Your task to perform on an android device: Search for macbook air on walmart, select the first entry, and add it to the cart. Image 0: 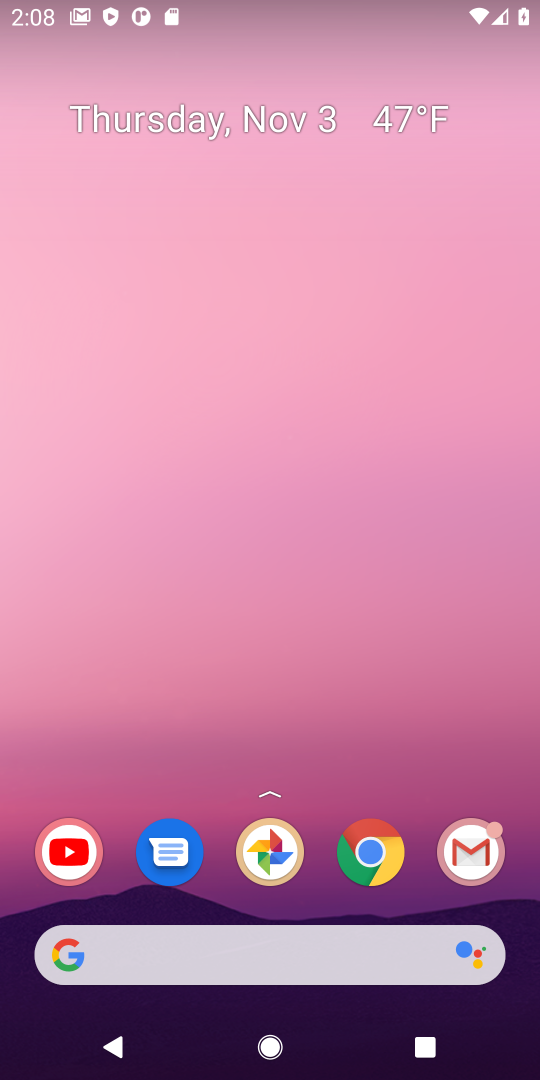
Step 0: click (383, 849)
Your task to perform on an android device: Search for macbook air on walmart, select the first entry, and add it to the cart. Image 1: 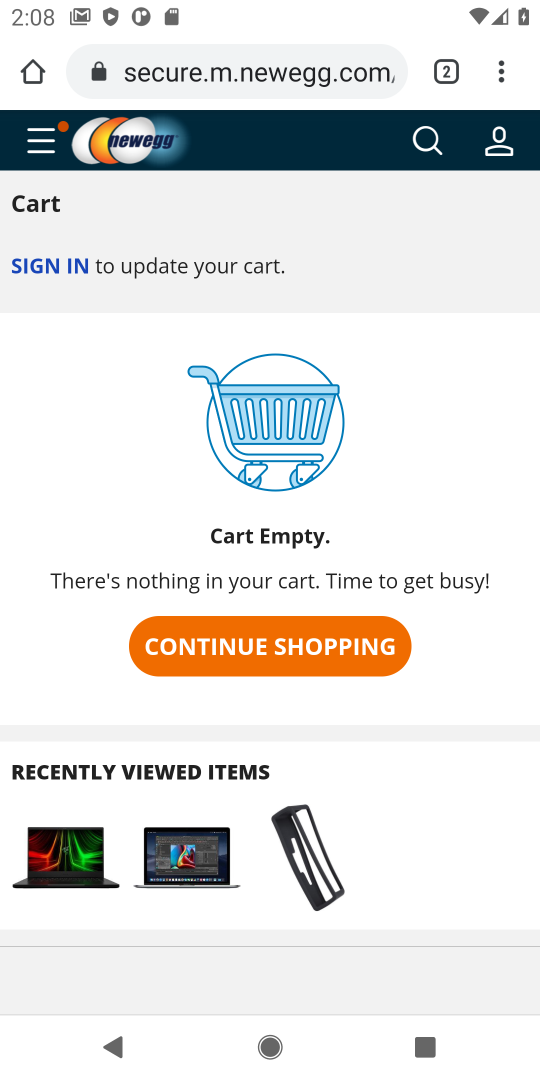
Step 1: click (237, 75)
Your task to perform on an android device: Search for macbook air on walmart, select the first entry, and add it to the cart. Image 2: 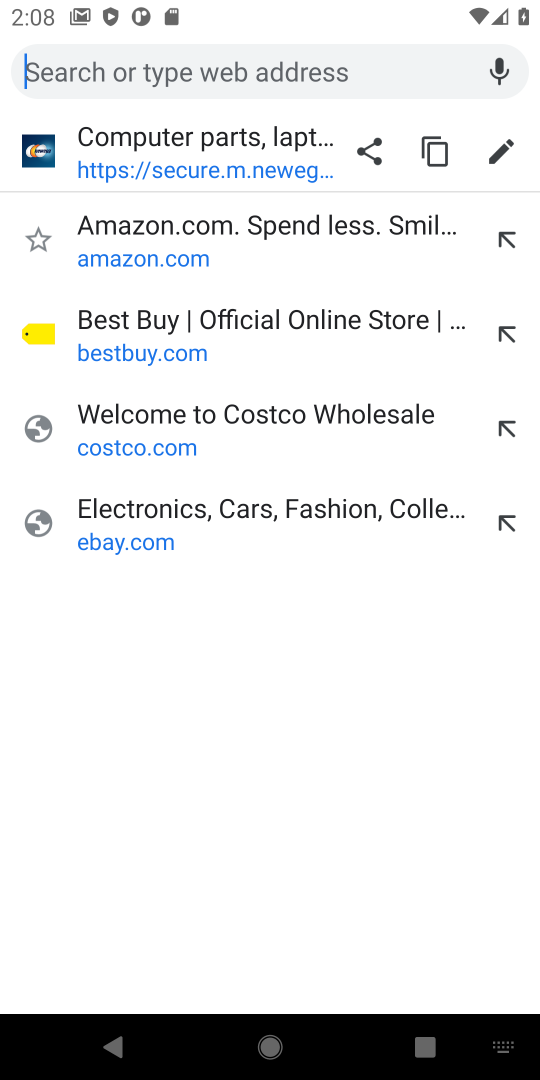
Step 2: type "walmart.com"
Your task to perform on an android device: Search for macbook air on walmart, select the first entry, and add it to the cart. Image 3: 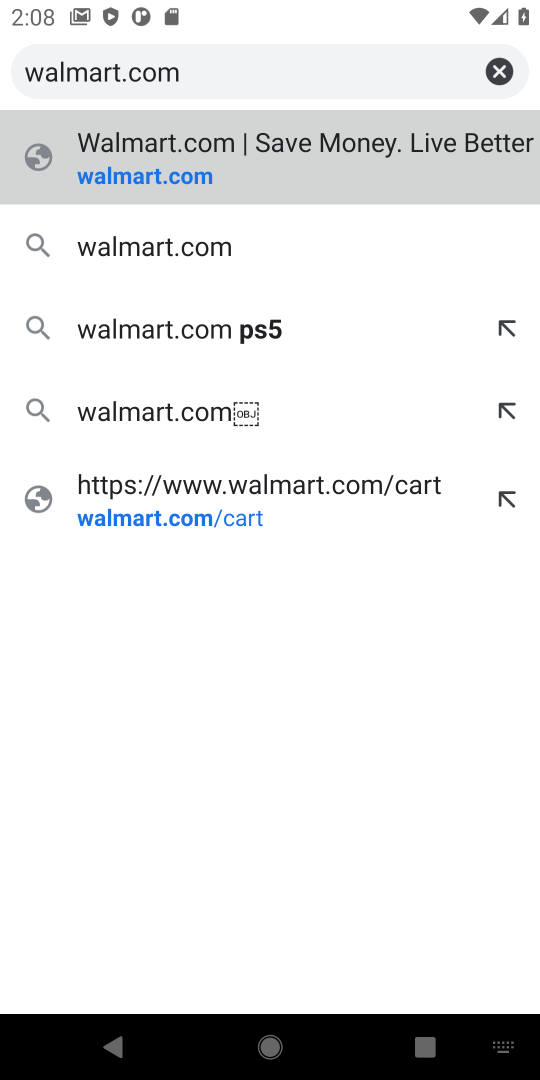
Step 3: click (171, 180)
Your task to perform on an android device: Search for macbook air on walmart, select the first entry, and add it to the cart. Image 4: 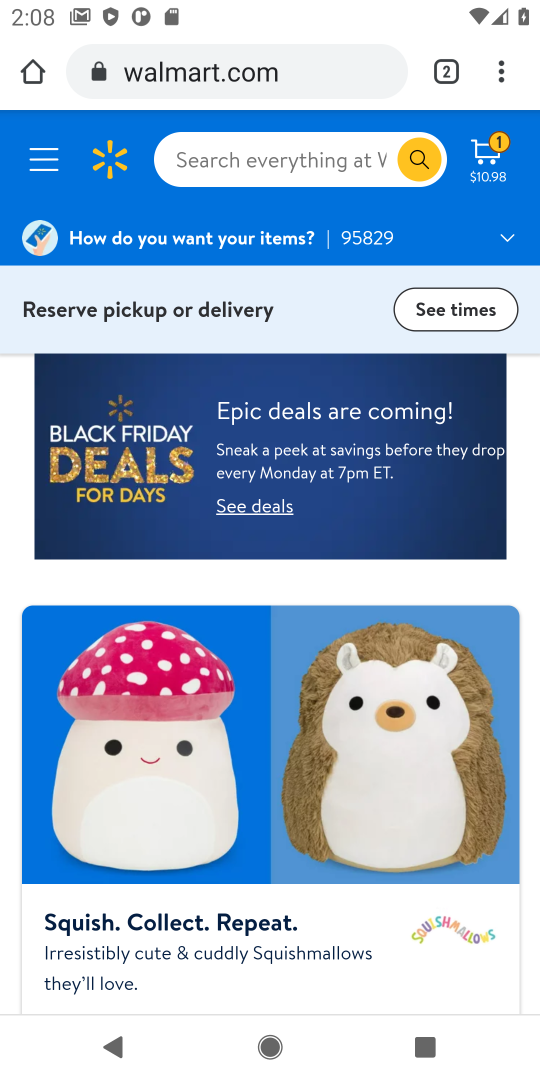
Step 4: click (232, 164)
Your task to perform on an android device: Search for macbook air on walmart, select the first entry, and add it to the cart. Image 5: 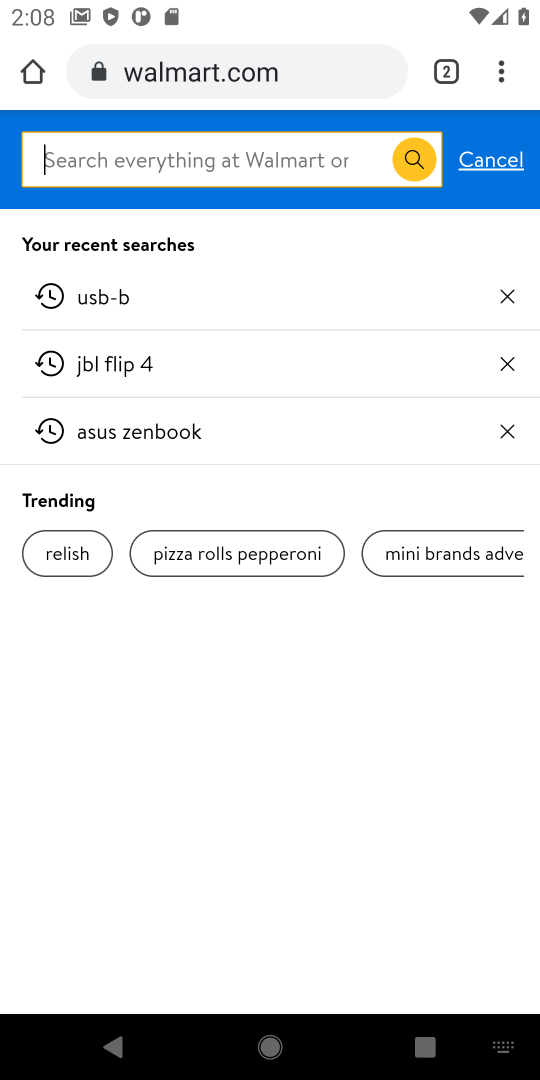
Step 5: type "macbook air"
Your task to perform on an android device: Search for macbook air on walmart, select the first entry, and add it to the cart. Image 6: 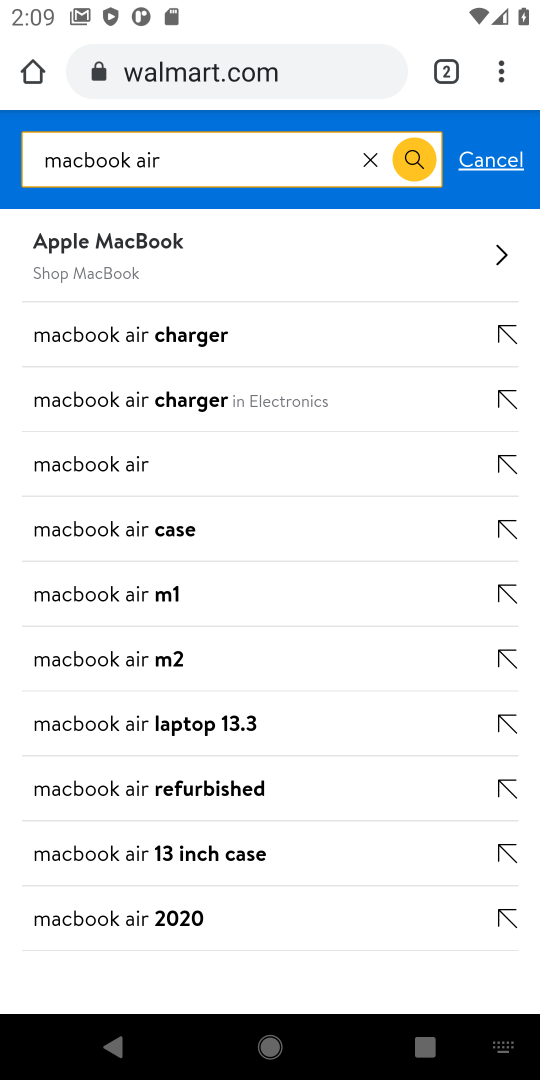
Step 6: click (88, 468)
Your task to perform on an android device: Search for macbook air on walmart, select the first entry, and add it to the cart. Image 7: 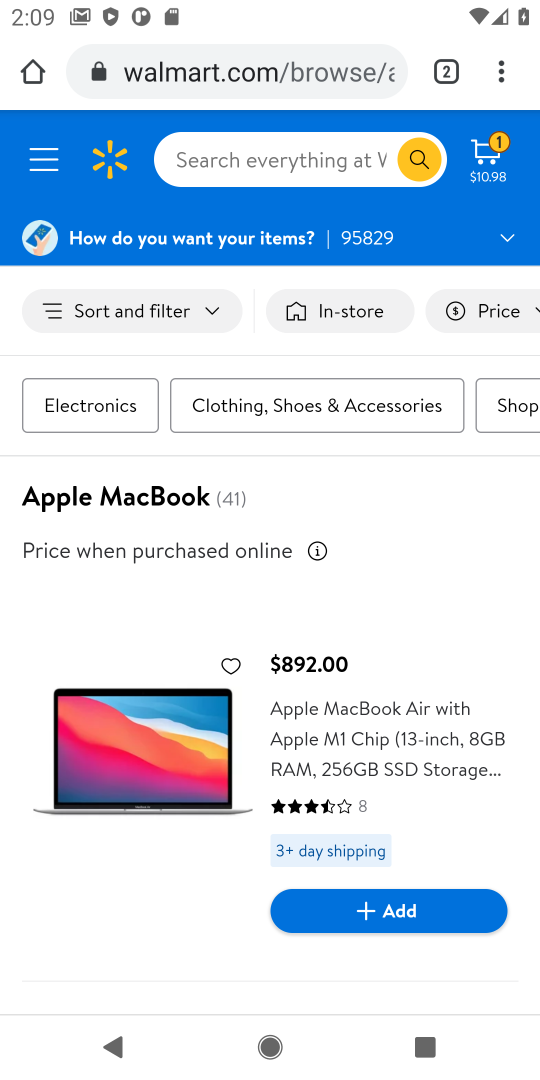
Step 7: click (406, 905)
Your task to perform on an android device: Search for macbook air on walmart, select the first entry, and add it to the cart. Image 8: 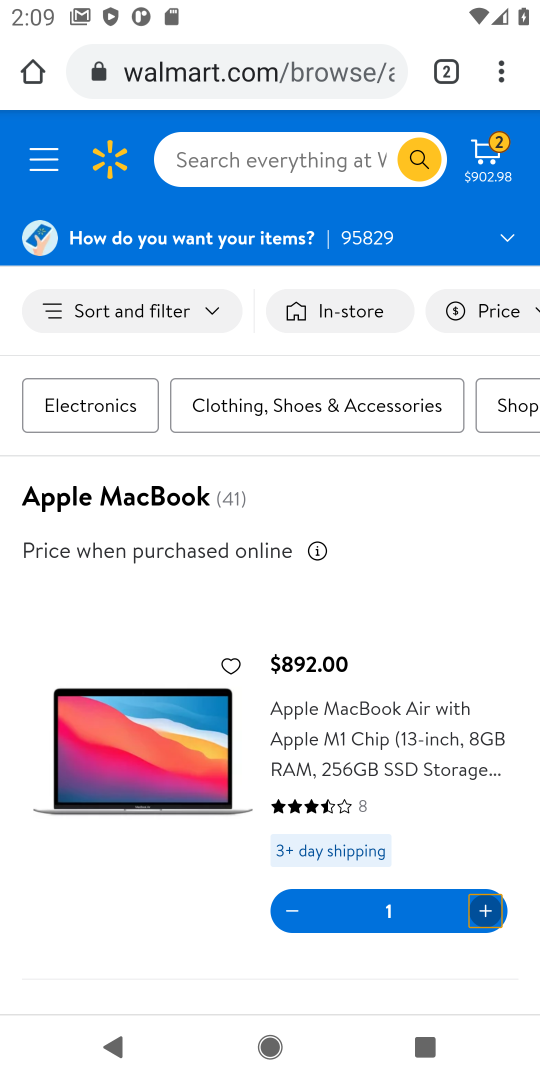
Step 8: task complete